Your task to perform on an android device: Open settings Image 0: 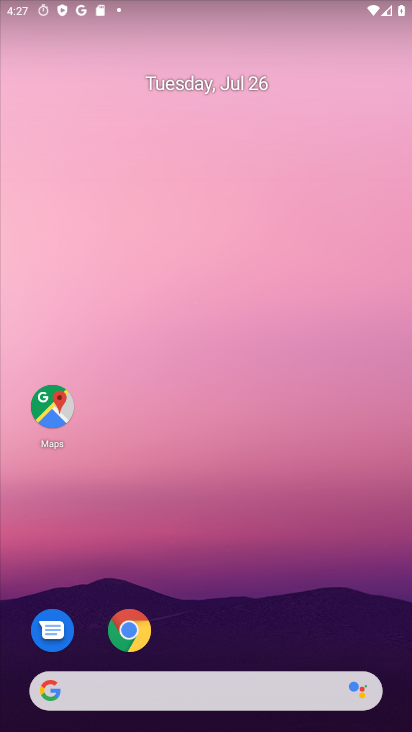
Step 0: drag from (295, 579) to (190, 101)
Your task to perform on an android device: Open settings Image 1: 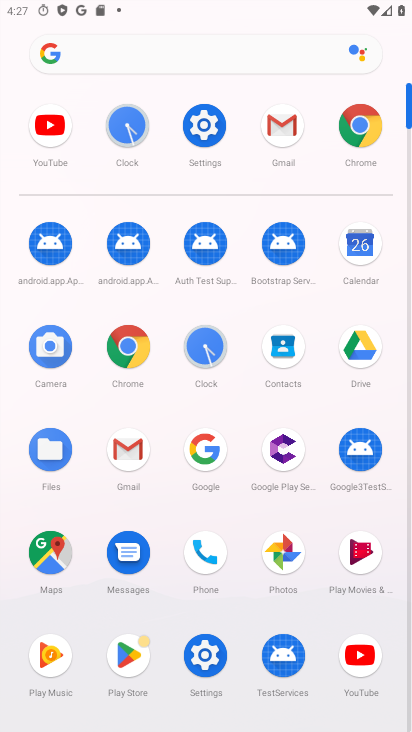
Step 1: click (209, 131)
Your task to perform on an android device: Open settings Image 2: 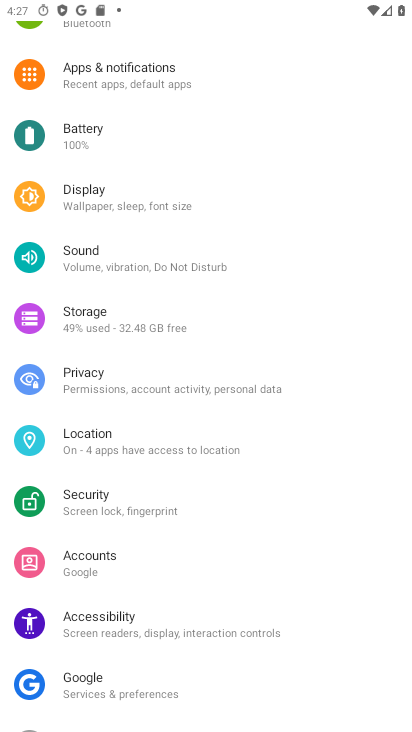
Step 2: task complete